Your task to perform on an android device: Open the web browser Image 0: 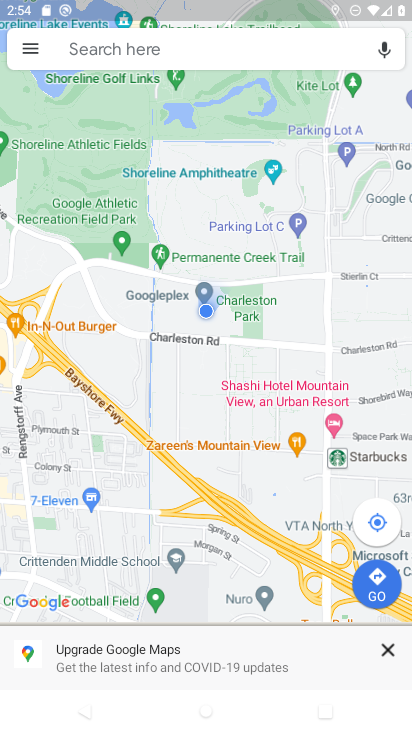
Step 0: press home button
Your task to perform on an android device: Open the web browser Image 1: 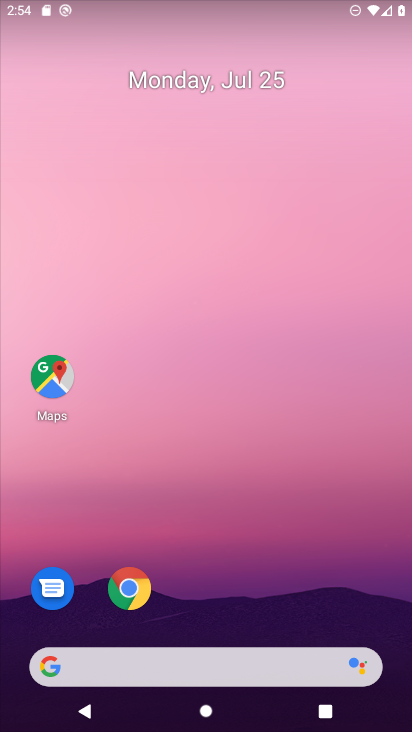
Step 1: click (137, 599)
Your task to perform on an android device: Open the web browser Image 2: 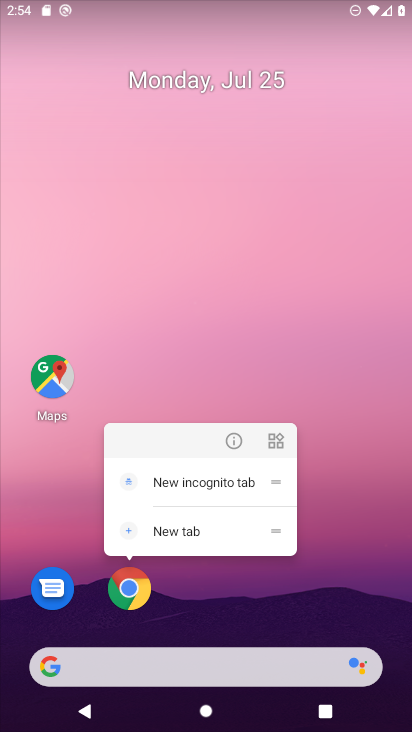
Step 2: click (119, 587)
Your task to perform on an android device: Open the web browser Image 3: 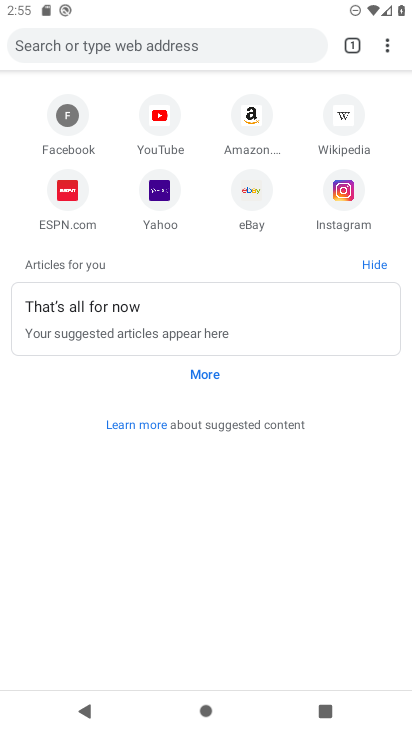
Step 3: task complete